Your task to perform on an android device: What's on my calendar tomorrow? Image 0: 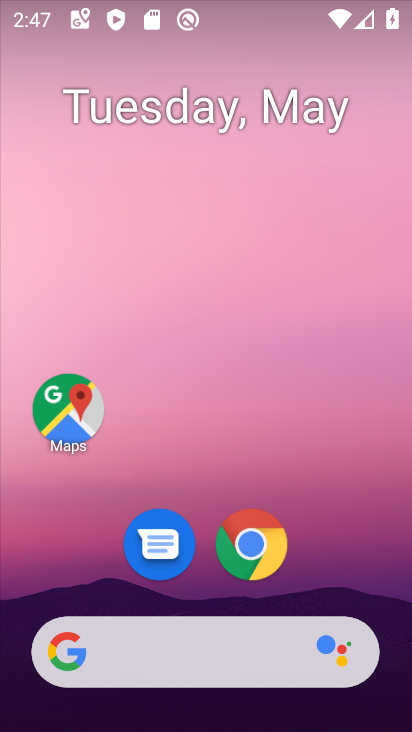
Step 0: drag from (357, 554) to (261, 80)
Your task to perform on an android device: What's on my calendar tomorrow? Image 1: 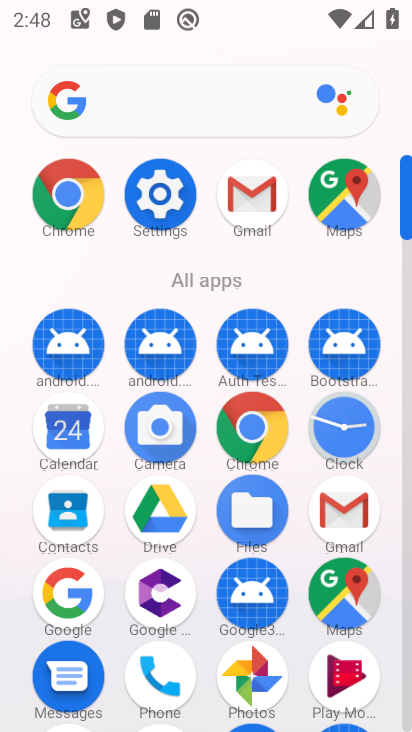
Step 1: click (69, 426)
Your task to perform on an android device: What's on my calendar tomorrow? Image 2: 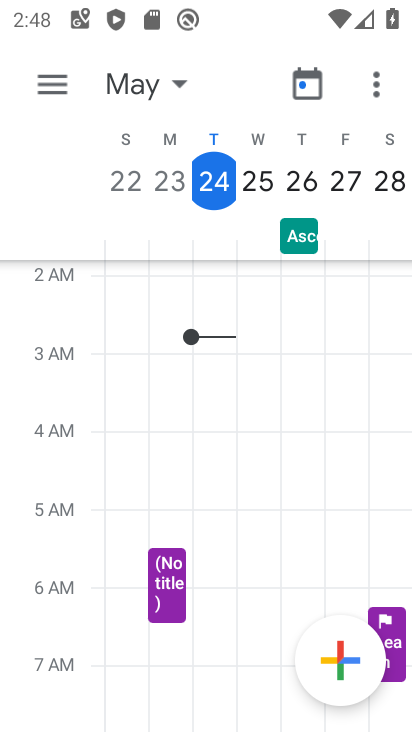
Step 2: click (180, 81)
Your task to perform on an android device: What's on my calendar tomorrow? Image 3: 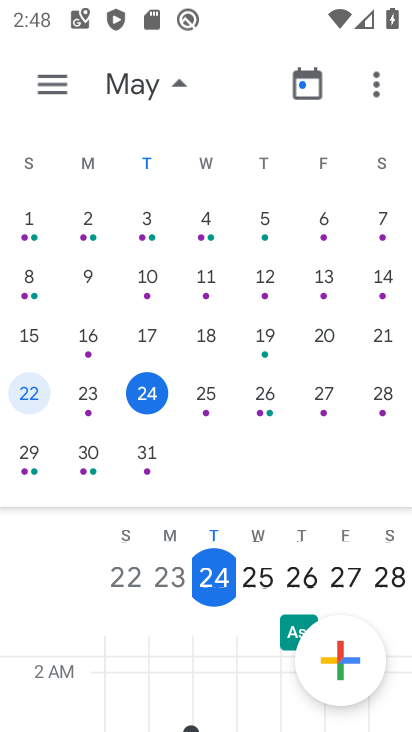
Step 3: click (210, 394)
Your task to perform on an android device: What's on my calendar tomorrow? Image 4: 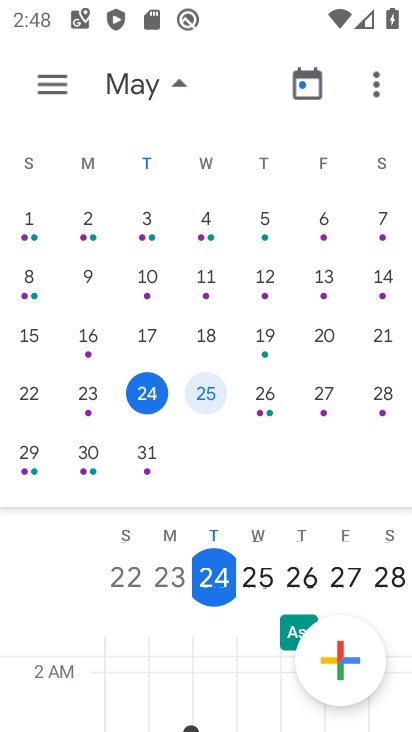
Step 4: click (62, 88)
Your task to perform on an android device: What's on my calendar tomorrow? Image 5: 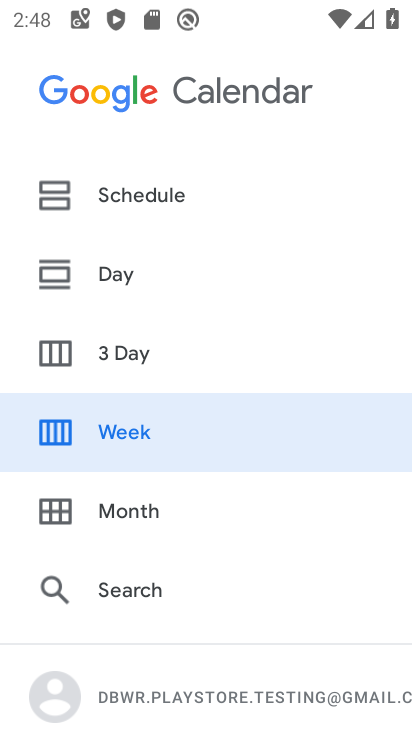
Step 5: click (136, 187)
Your task to perform on an android device: What's on my calendar tomorrow? Image 6: 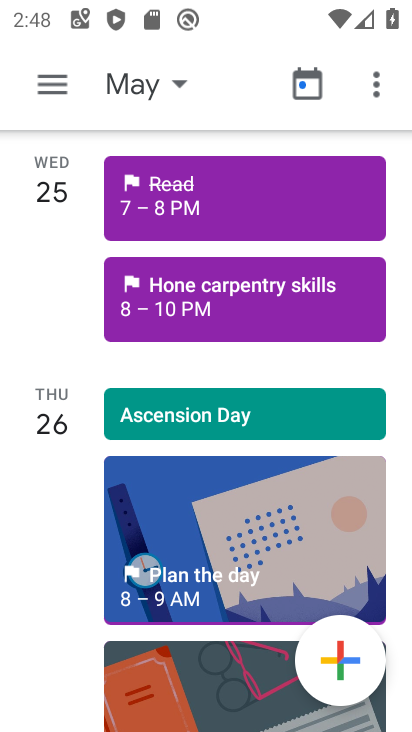
Step 6: click (219, 214)
Your task to perform on an android device: What's on my calendar tomorrow? Image 7: 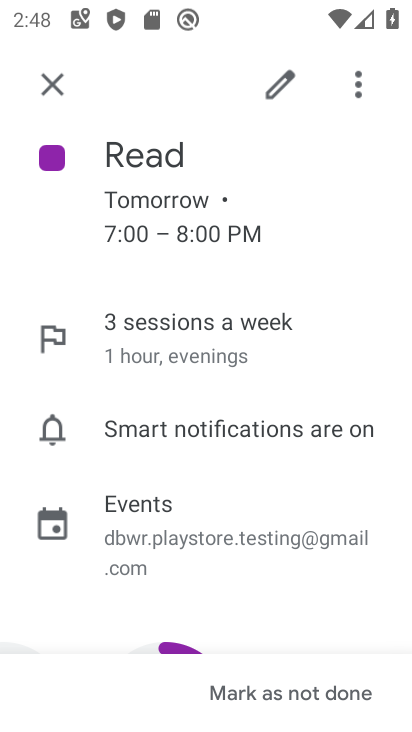
Step 7: task complete